Your task to perform on an android device: make emails show in primary in the gmail app Image 0: 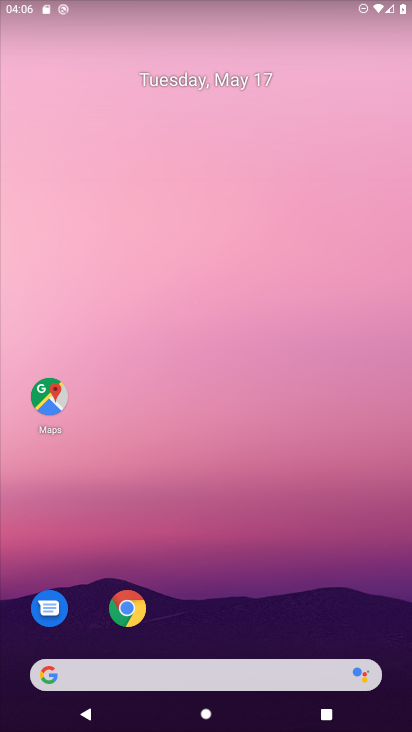
Step 0: drag from (189, 658) to (198, 307)
Your task to perform on an android device: make emails show in primary in the gmail app Image 1: 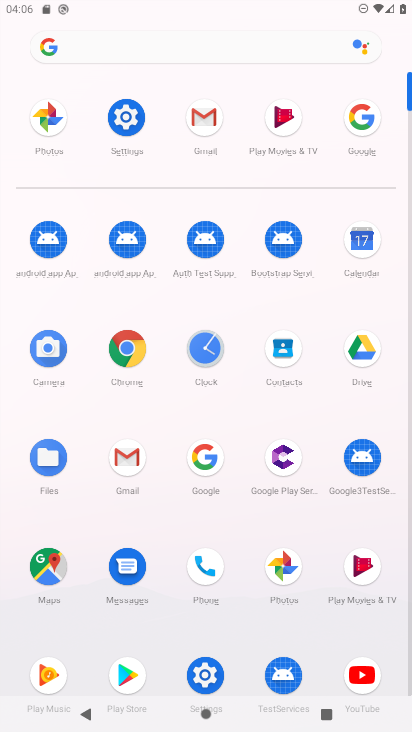
Step 1: click (212, 122)
Your task to perform on an android device: make emails show in primary in the gmail app Image 2: 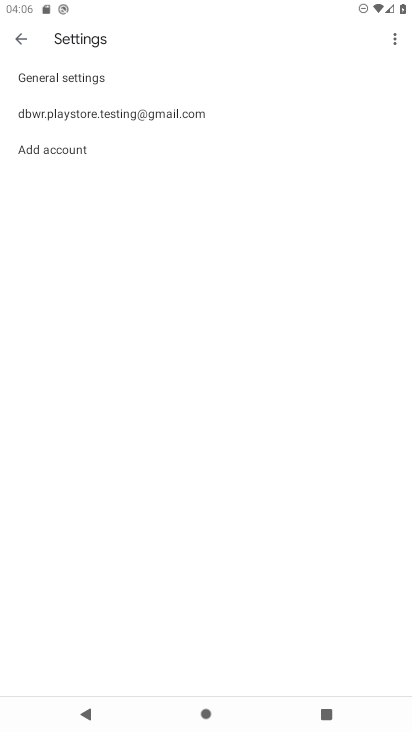
Step 2: click (140, 110)
Your task to perform on an android device: make emails show in primary in the gmail app Image 3: 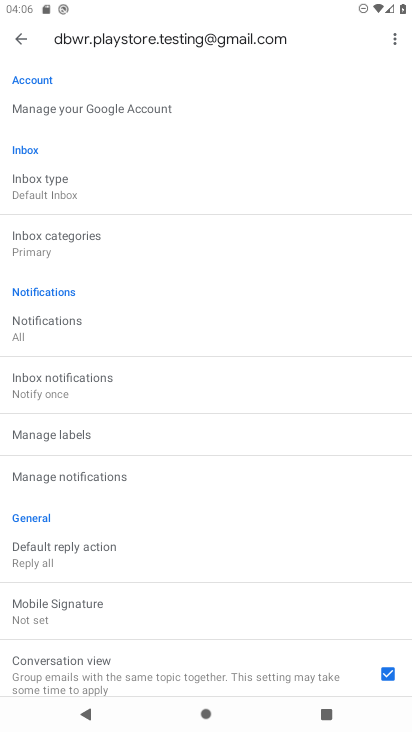
Step 3: task complete